Your task to perform on an android device: turn on airplane mode Image 0: 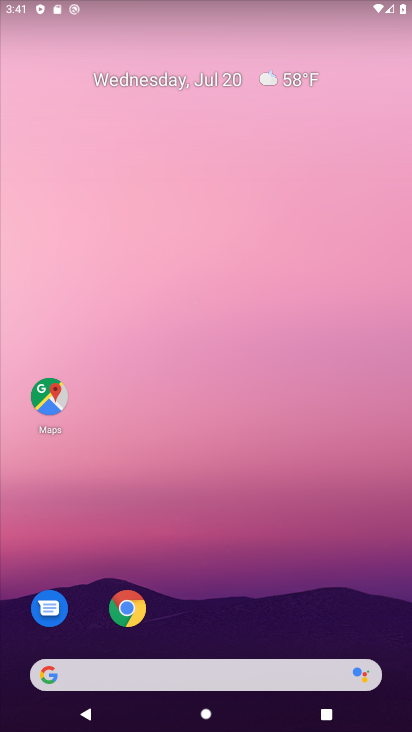
Step 0: drag from (187, 634) to (217, 142)
Your task to perform on an android device: turn on airplane mode Image 1: 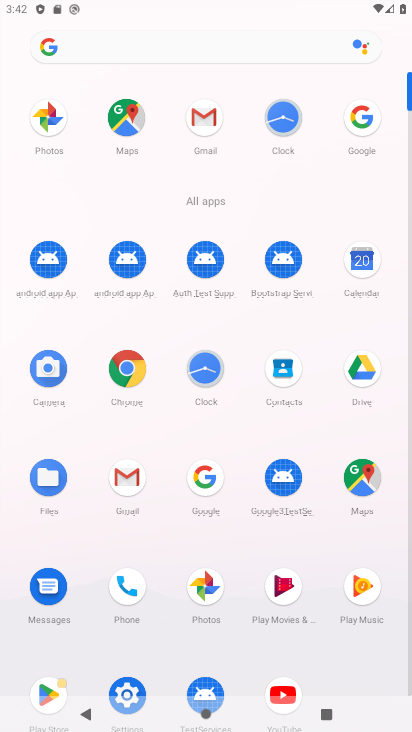
Step 1: click (133, 697)
Your task to perform on an android device: turn on airplane mode Image 2: 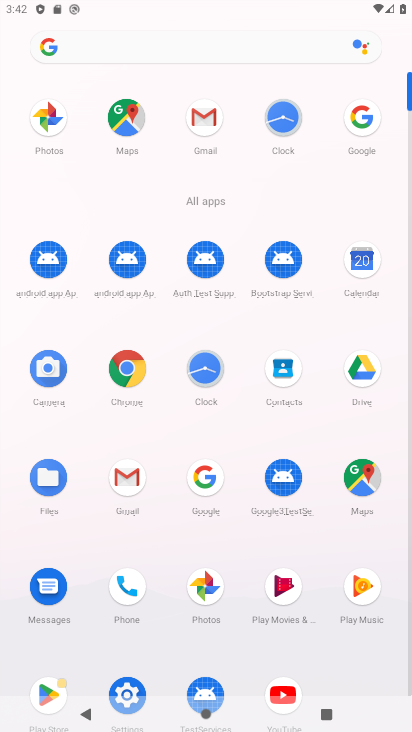
Step 2: click (135, 685)
Your task to perform on an android device: turn on airplane mode Image 3: 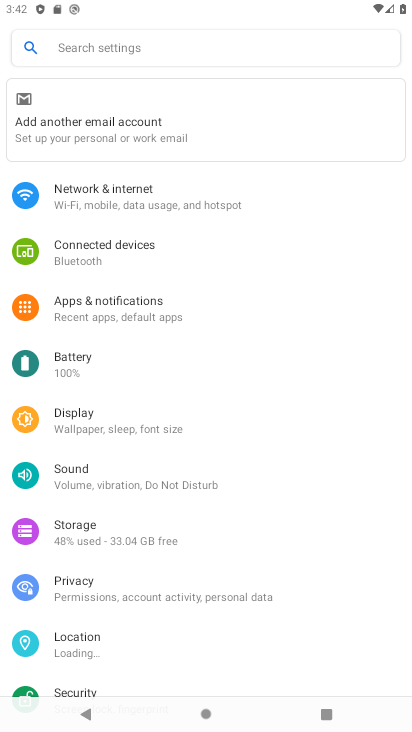
Step 3: click (182, 199)
Your task to perform on an android device: turn on airplane mode Image 4: 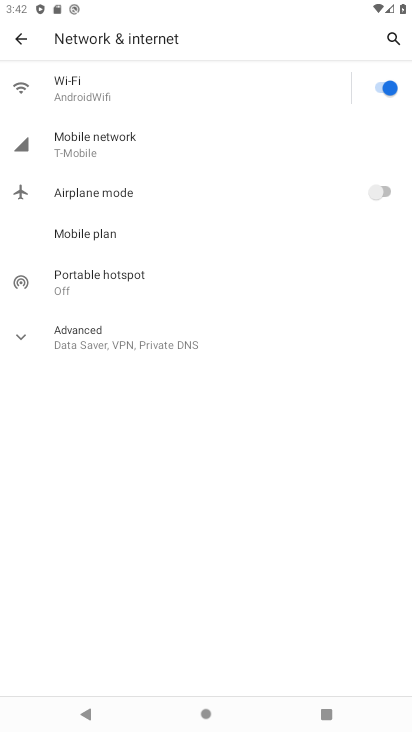
Step 4: click (389, 187)
Your task to perform on an android device: turn on airplane mode Image 5: 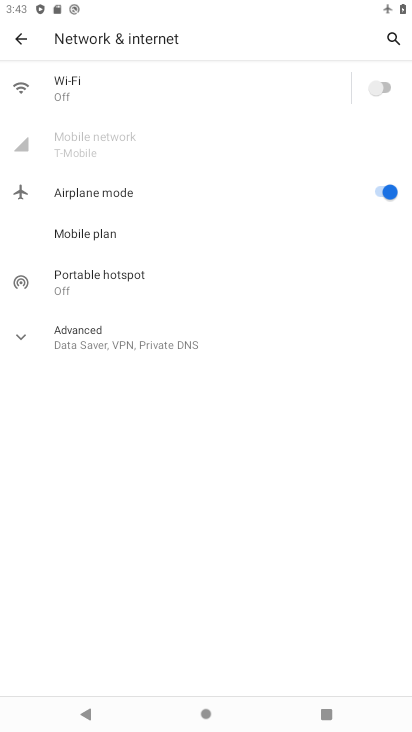
Step 5: task complete